Your task to perform on an android device: delete browsing data in the chrome app Image 0: 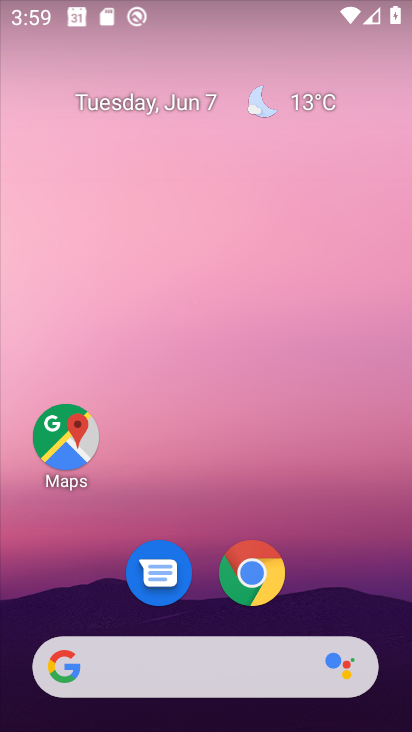
Step 0: click (274, 583)
Your task to perform on an android device: delete browsing data in the chrome app Image 1: 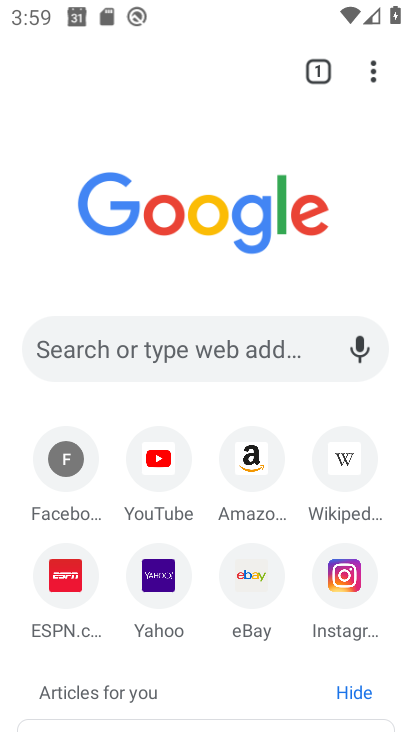
Step 1: drag from (373, 65) to (139, 592)
Your task to perform on an android device: delete browsing data in the chrome app Image 2: 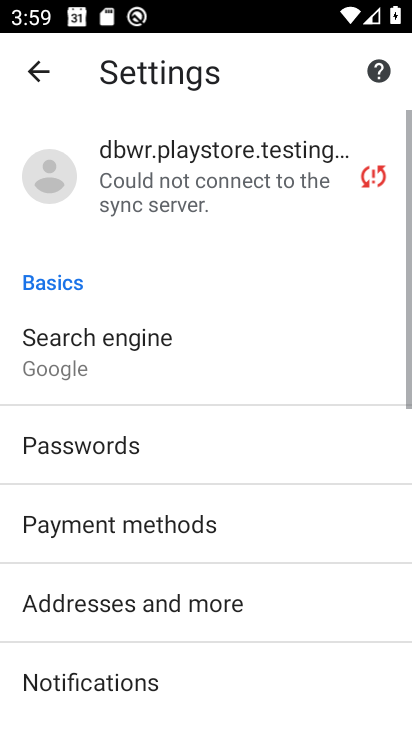
Step 2: drag from (217, 648) to (184, 248)
Your task to perform on an android device: delete browsing data in the chrome app Image 3: 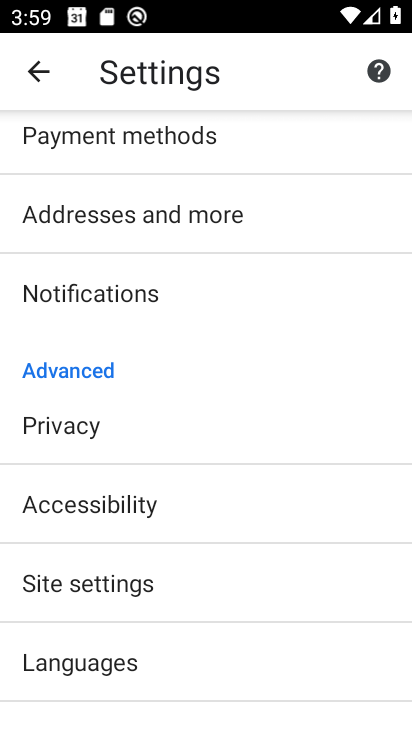
Step 3: click (149, 433)
Your task to perform on an android device: delete browsing data in the chrome app Image 4: 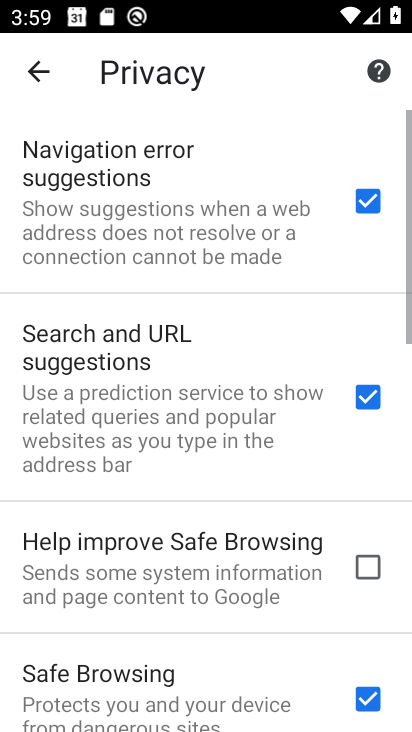
Step 4: drag from (234, 598) to (217, 118)
Your task to perform on an android device: delete browsing data in the chrome app Image 5: 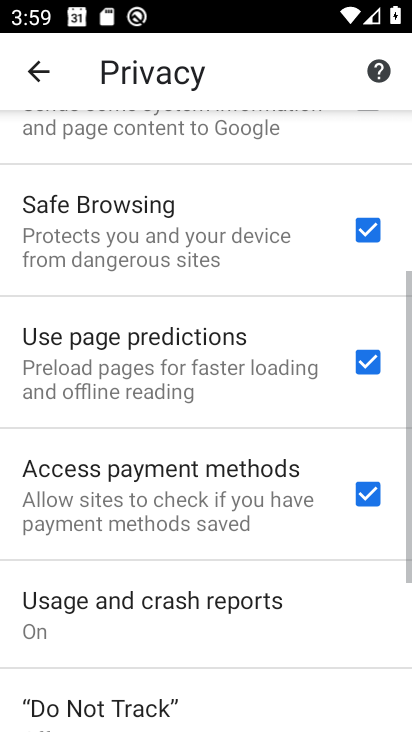
Step 5: drag from (227, 601) to (237, 168)
Your task to perform on an android device: delete browsing data in the chrome app Image 6: 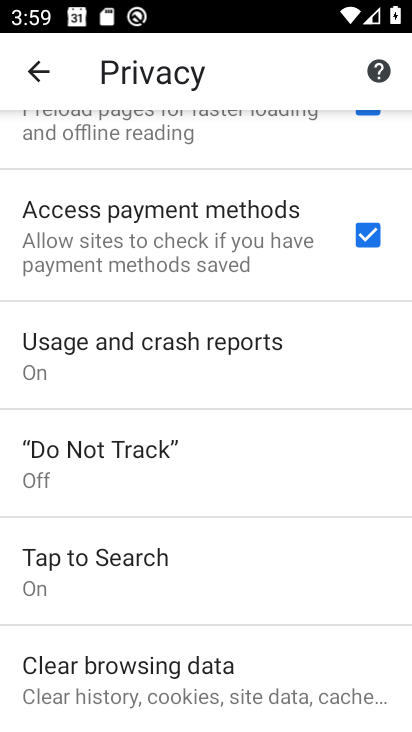
Step 6: click (215, 680)
Your task to perform on an android device: delete browsing data in the chrome app Image 7: 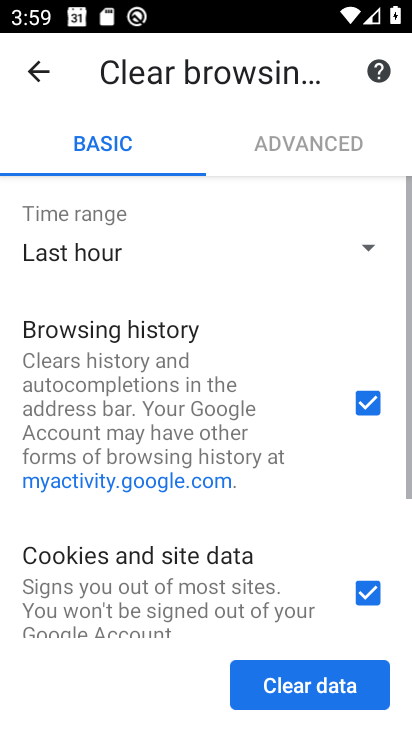
Step 7: click (279, 681)
Your task to perform on an android device: delete browsing data in the chrome app Image 8: 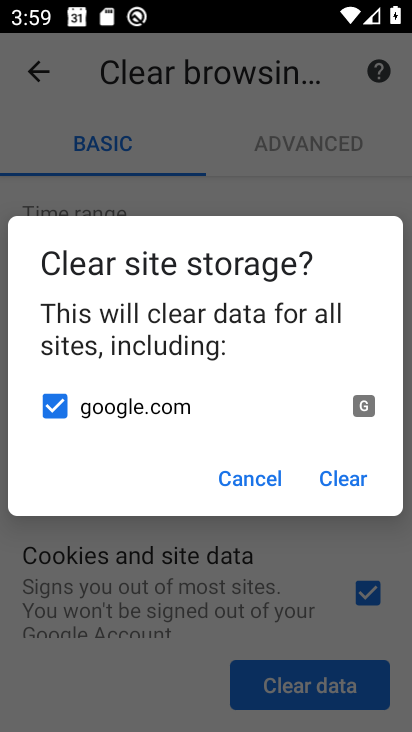
Step 8: click (360, 466)
Your task to perform on an android device: delete browsing data in the chrome app Image 9: 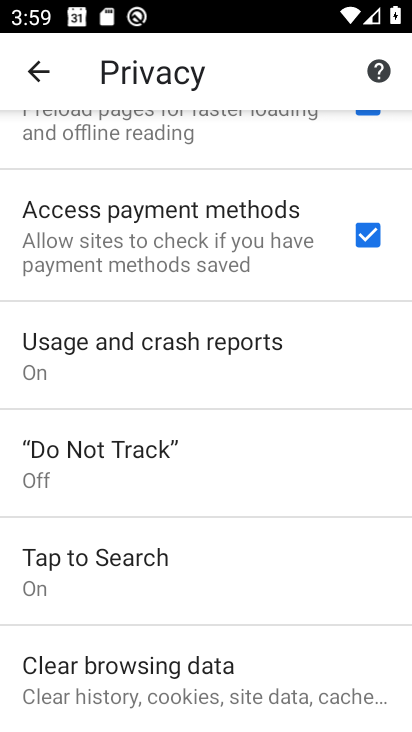
Step 9: task complete